Your task to perform on an android device: toggle show notifications on the lock screen Image 0: 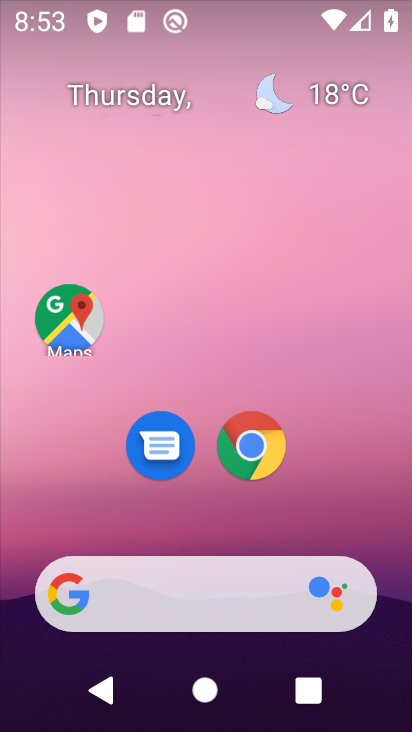
Step 0: drag from (390, 526) to (277, 83)
Your task to perform on an android device: toggle show notifications on the lock screen Image 1: 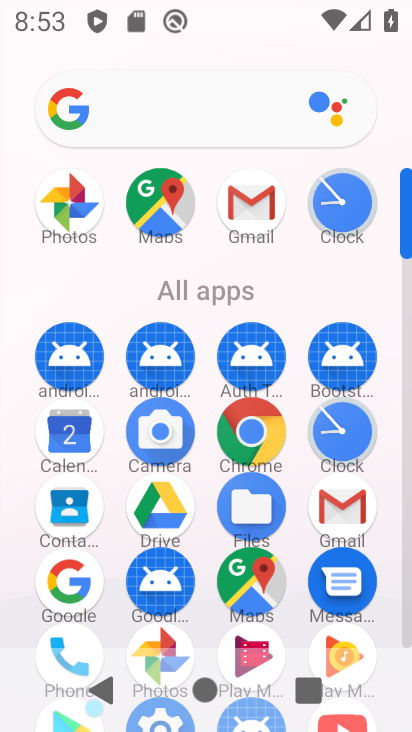
Step 1: click (407, 640)
Your task to perform on an android device: toggle show notifications on the lock screen Image 2: 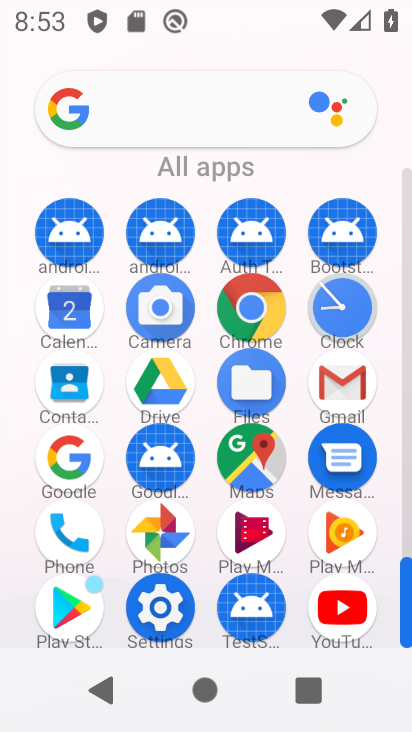
Step 2: click (171, 624)
Your task to perform on an android device: toggle show notifications on the lock screen Image 3: 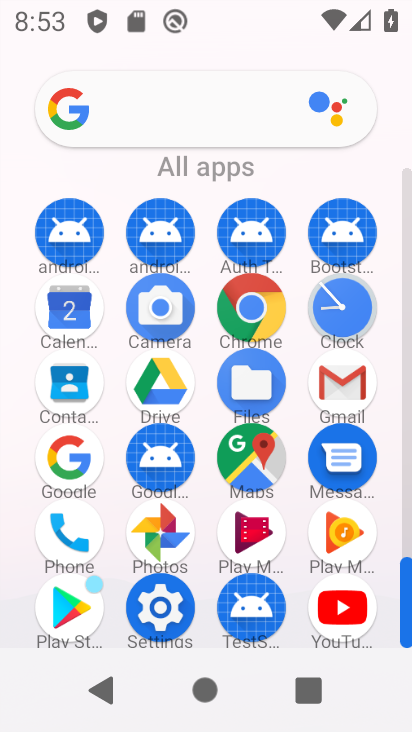
Step 3: click (166, 610)
Your task to perform on an android device: toggle show notifications on the lock screen Image 4: 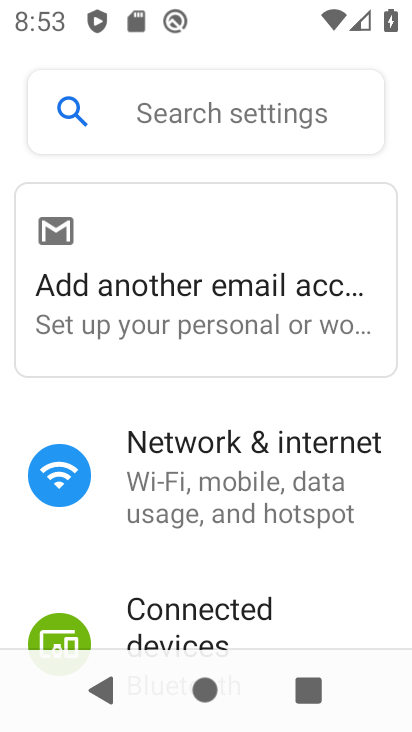
Step 4: drag from (327, 585) to (293, 181)
Your task to perform on an android device: toggle show notifications on the lock screen Image 5: 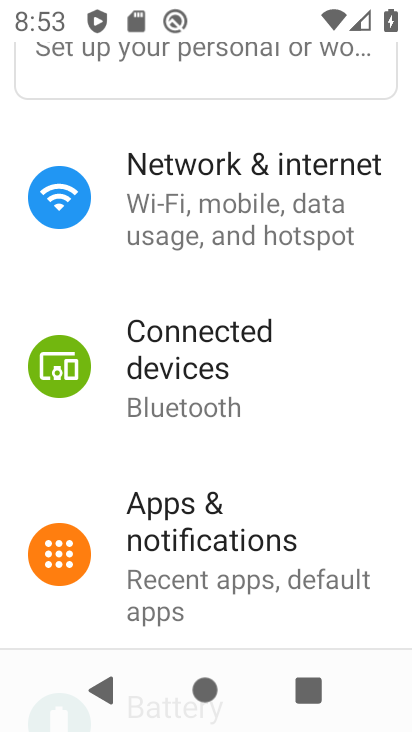
Step 5: click (307, 514)
Your task to perform on an android device: toggle show notifications on the lock screen Image 6: 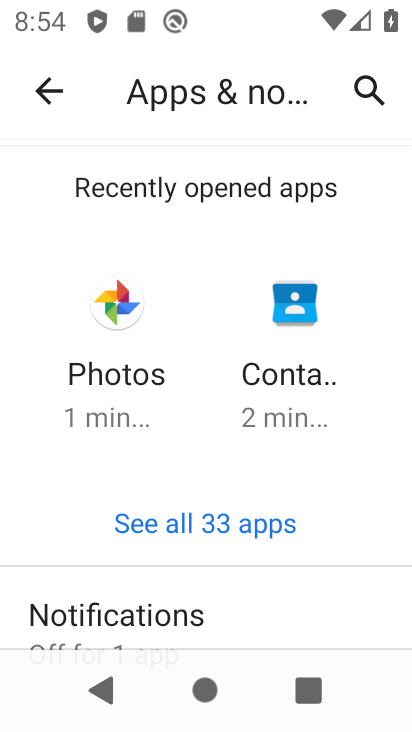
Step 6: drag from (295, 593) to (242, 239)
Your task to perform on an android device: toggle show notifications on the lock screen Image 7: 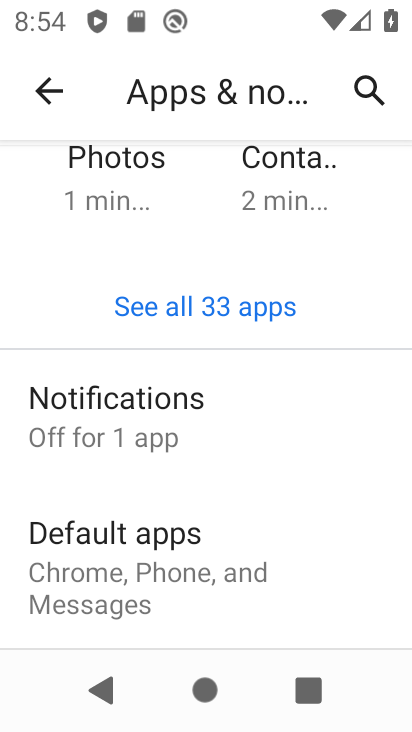
Step 7: click (264, 419)
Your task to perform on an android device: toggle show notifications on the lock screen Image 8: 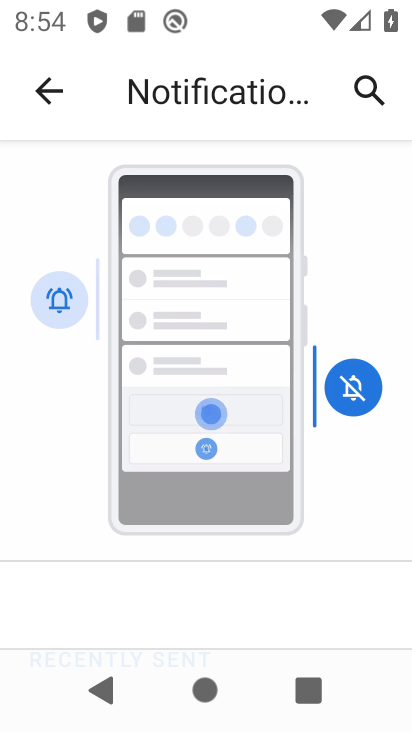
Step 8: drag from (307, 559) to (229, 72)
Your task to perform on an android device: toggle show notifications on the lock screen Image 9: 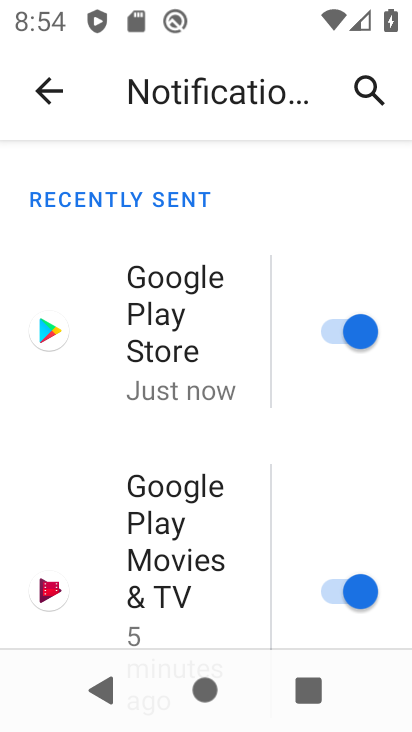
Step 9: drag from (262, 576) to (221, 91)
Your task to perform on an android device: toggle show notifications on the lock screen Image 10: 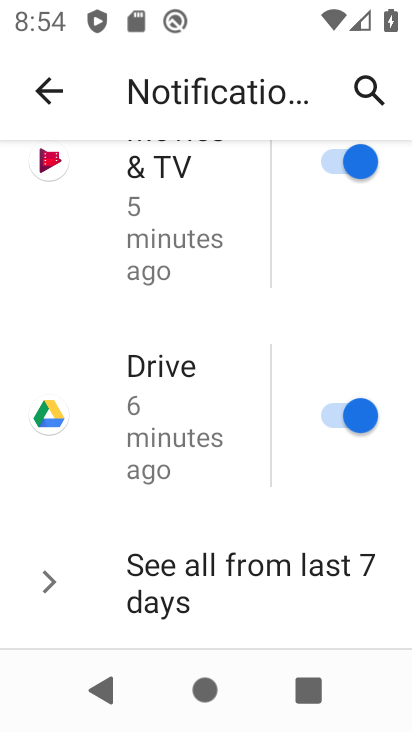
Step 10: drag from (278, 623) to (223, 89)
Your task to perform on an android device: toggle show notifications on the lock screen Image 11: 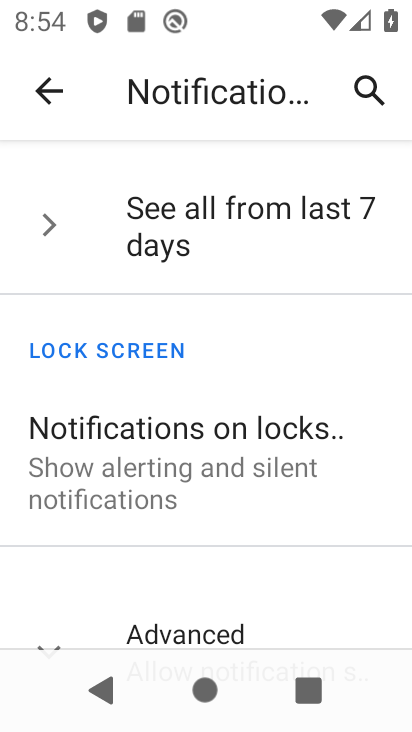
Step 11: click (307, 426)
Your task to perform on an android device: toggle show notifications on the lock screen Image 12: 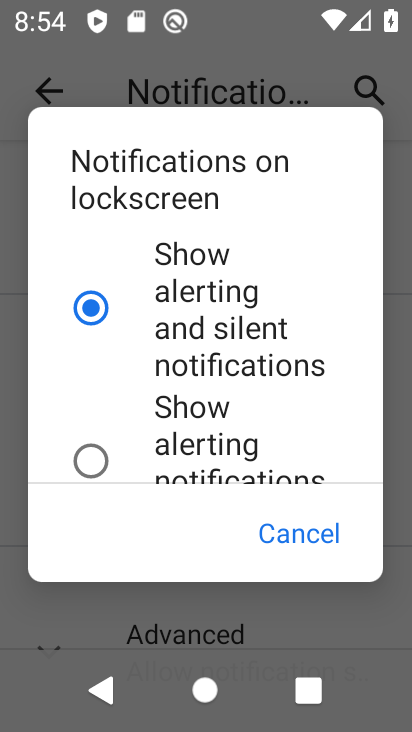
Step 12: drag from (313, 437) to (274, 225)
Your task to perform on an android device: toggle show notifications on the lock screen Image 13: 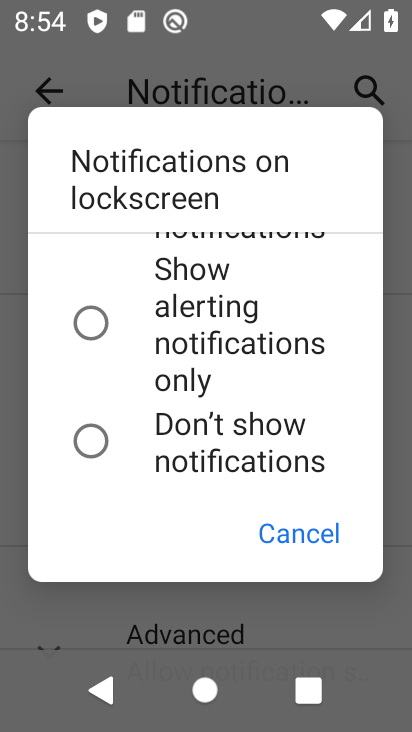
Step 13: click (280, 284)
Your task to perform on an android device: toggle show notifications on the lock screen Image 14: 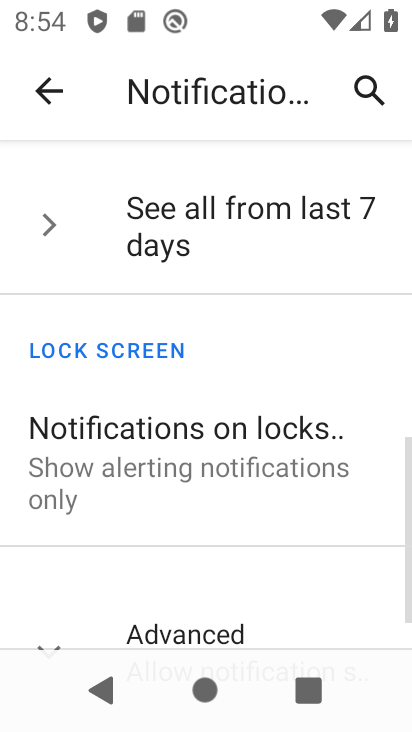
Step 14: task complete